Your task to perform on an android device: add a contact in the contacts app Image 0: 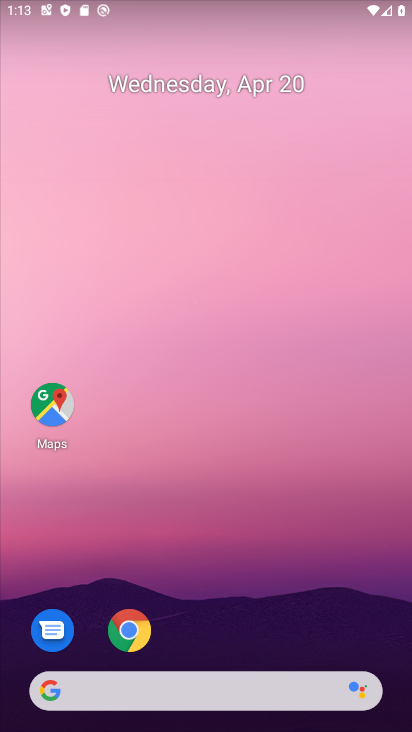
Step 0: drag from (329, 604) to (320, 176)
Your task to perform on an android device: add a contact in the contacts app Image 1: 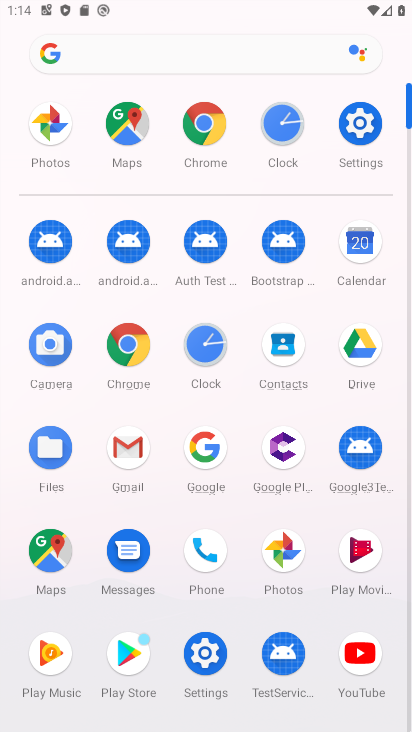
Step 1: click (286, 361)
Your task to perform on an android device: add a contact in the contacts app Image 2: 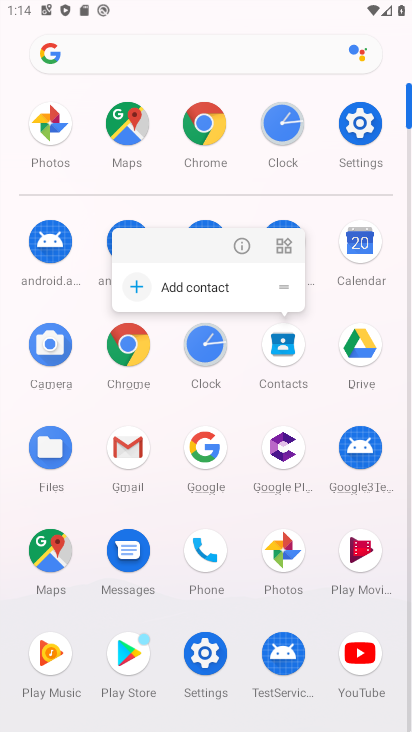
Step 2: click (281, 342)
Your task to perform on an android device: add a contact in the contacts app Image 3: 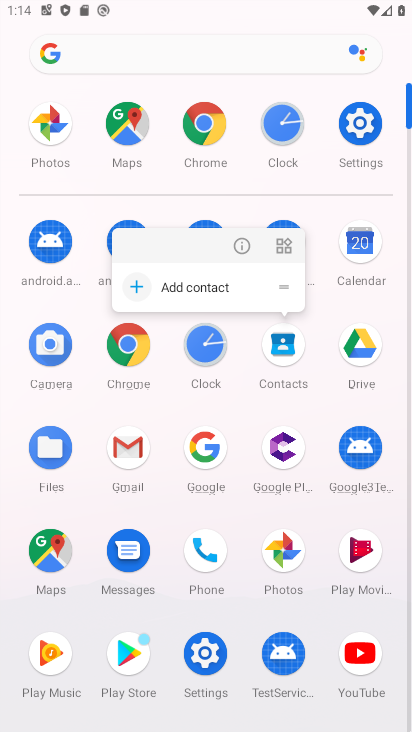
Step 3: click (279, 340)
Your task to perform on an android device: add a contact in the contacts app Image 4: 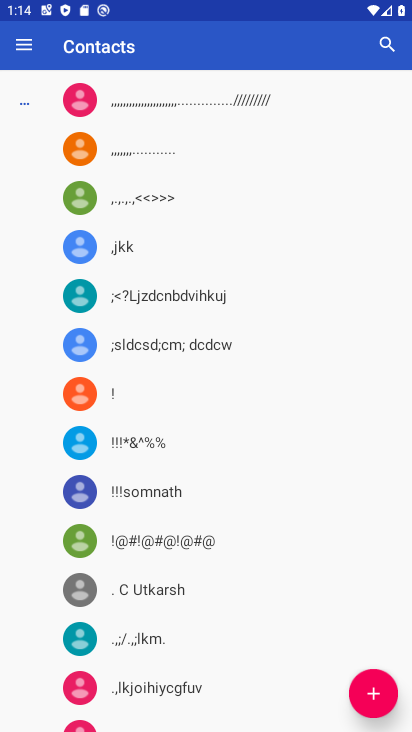
Step 4: click (366, 694)
Your task to perform on an android device: add a contact in the contacts app Image 5: 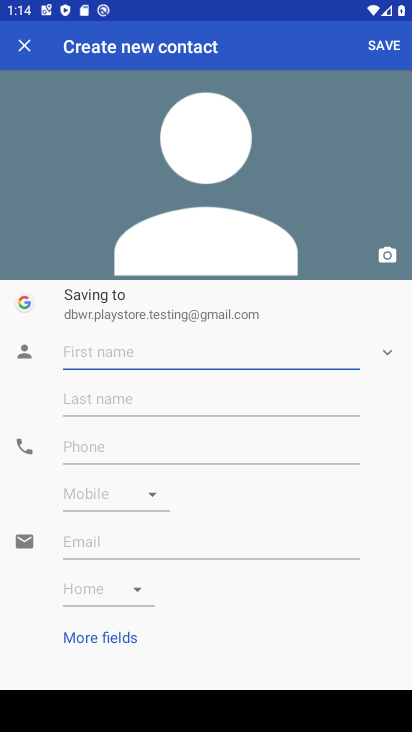
Step 5: click (191, 353)
Your task to perform on an android device: add a contact in the contacts app Image 6: 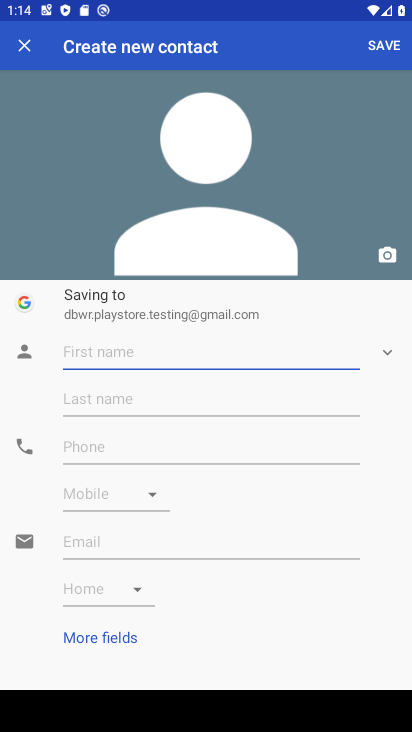
Step 6: type "hemant"
Your task to perform on an android device: add a contact in the contacts app Image 7: 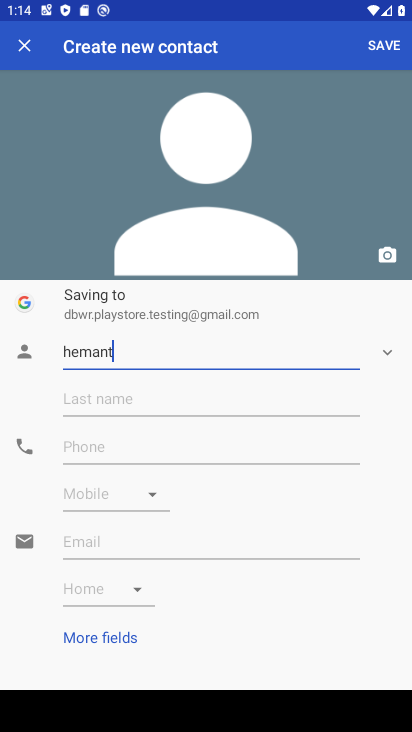
Step 7: click (174, 444)
Your task to perform on an android device: add a contact in the contacts app Image 8: 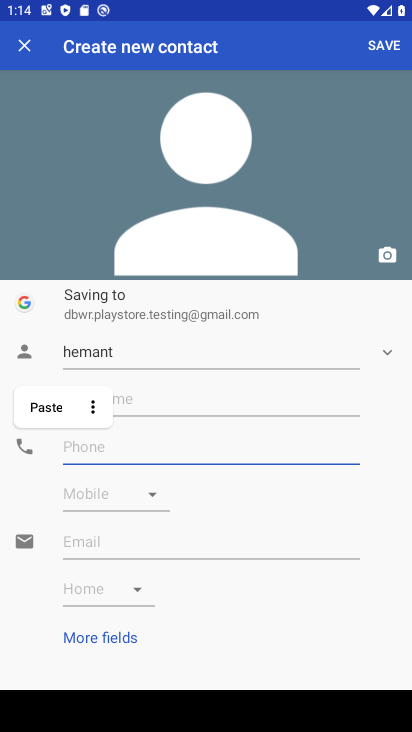
Step 8: type "8776597676"
Your task to perform on an android device: add a contact in the contacts app Image 9: 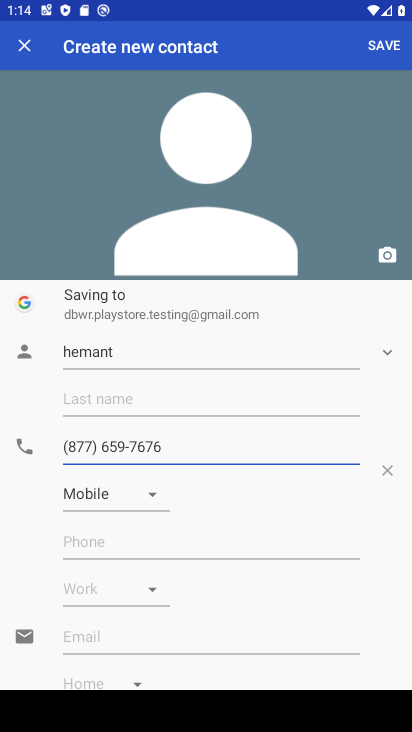
Step 9: click (389, 45)
Your task to perform on an android device: add a contact in the contacts app Image 10: 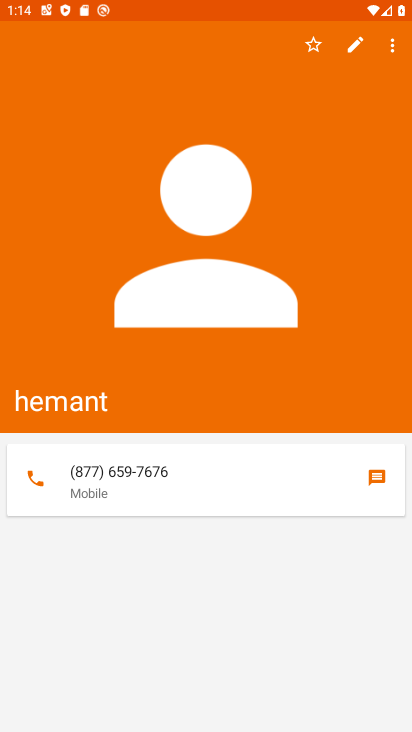
Step 10: task complete